Your task to perform on an android device: Open wifi settings Image 0: 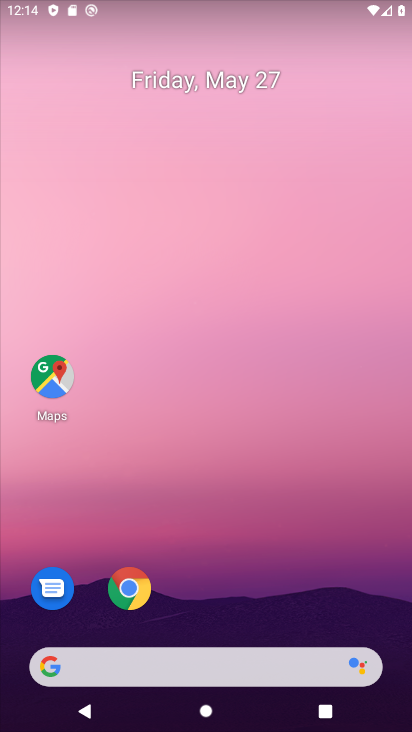
Step 0: drag from (212, 635) to (239, 100)
Your task to perform on an android device: Open wifi settings Image 1: 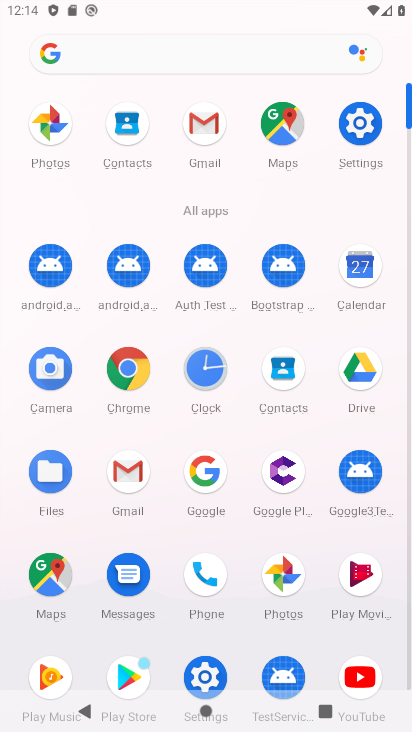
Step 1: click (361, 123)
Your task to perform on an android device: Open wifi settings Image 2: 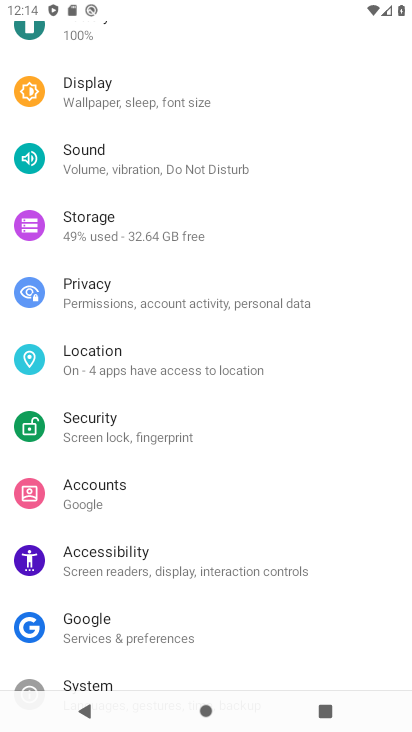
Step 2: drag from (130, 120) to (163, 578)
Your task to perform on an android device: Open wifi settings Image 3: 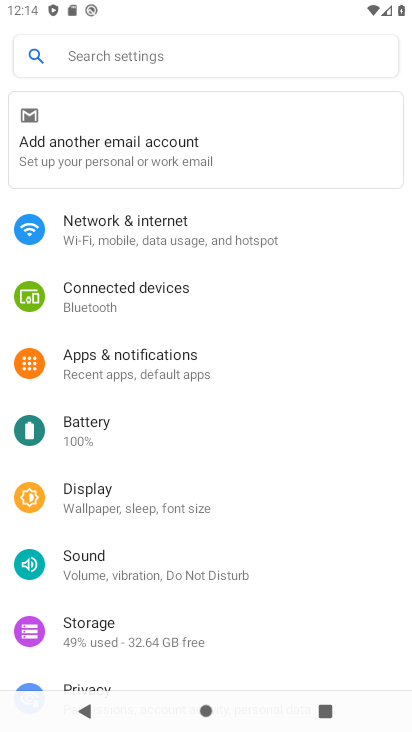
Step 3: click (209, 218)
Your task to perform on an android device: Open wifi settings Image 4: 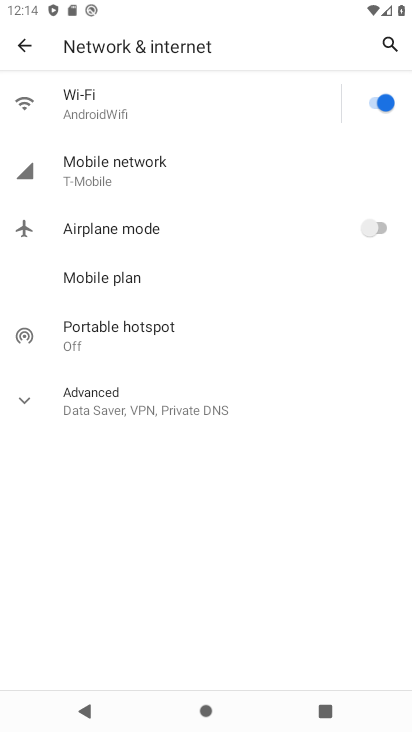
Step 4: click (148, 94)
Your task to perform on an android device: Open wifi settings Image 5: 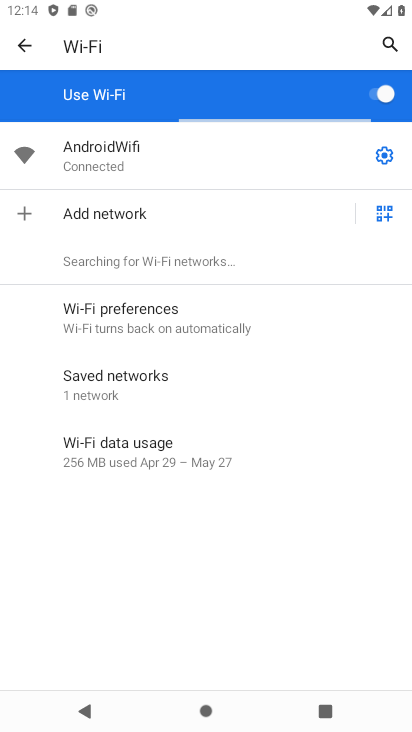
Step 5: task complete